Your task to perform on an android device: Open Maps and search for coffee Image 0: 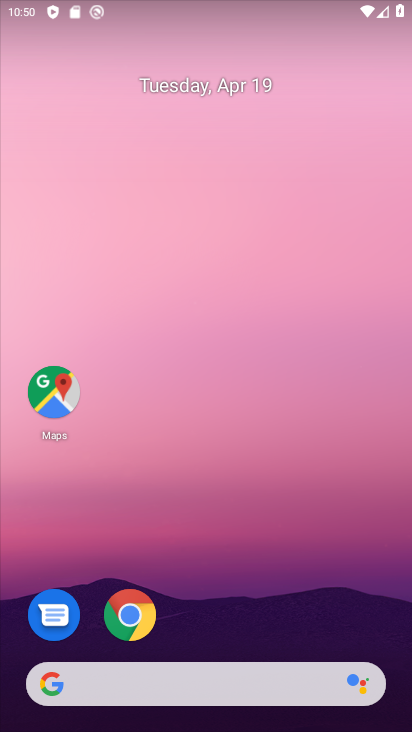
Step 0: click (54, 392)
Your task to perform on an android device: Open Maps and search for coffee Image 1: 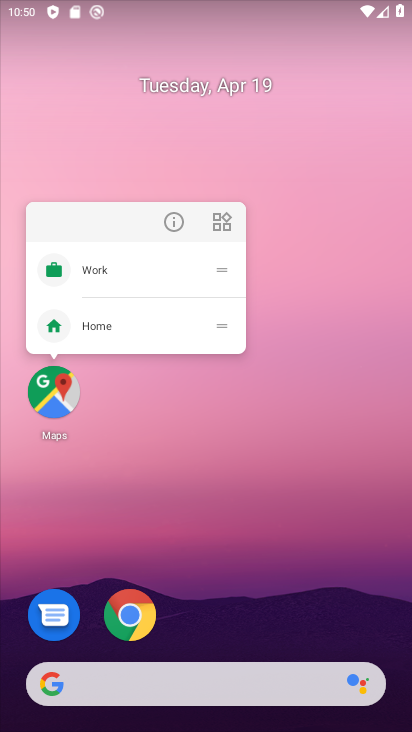
Step 1: click (54, 392)
Your task to perform on an android device: Open Maps and search for coffee Image 2: 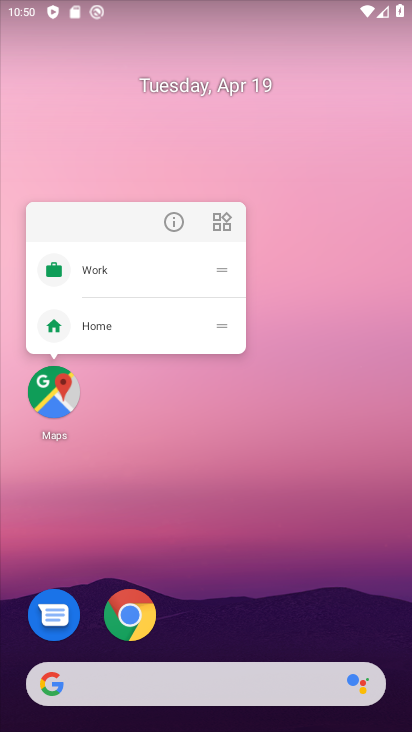
Step 2: click (121, 396)
Your task to perform on an android device: Open Maps and search for coffee Image 3: 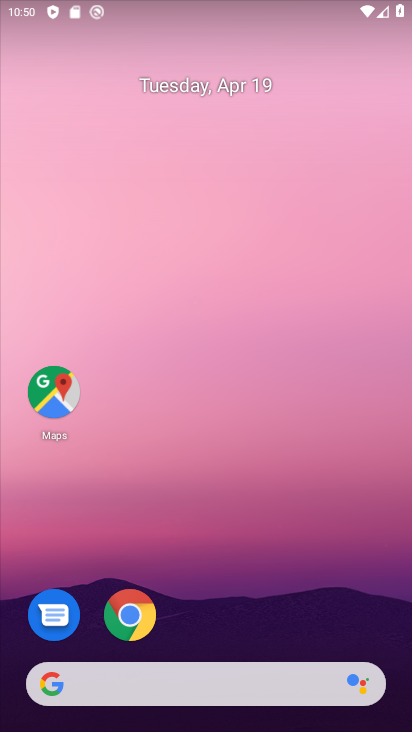
Step 3: click (54, 393)
Your task to perform on an android device: Open Maps and search for coffee Image 4: 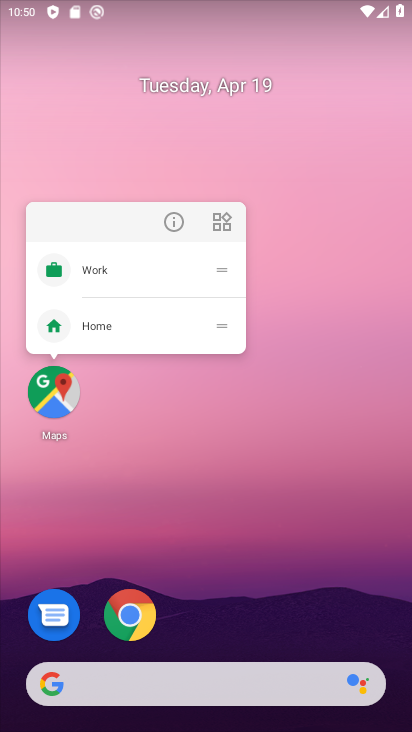
Step 4: click (54, 393)
Your task to perform on an android device: Open Maps and search for coffee Image 5: 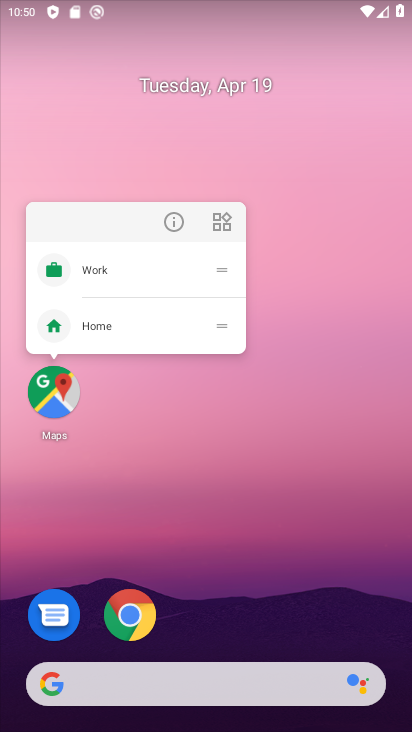
Step 5: click (54, 393)
Your task to perform on an android device: Open Maps and search for coffee Image 6: 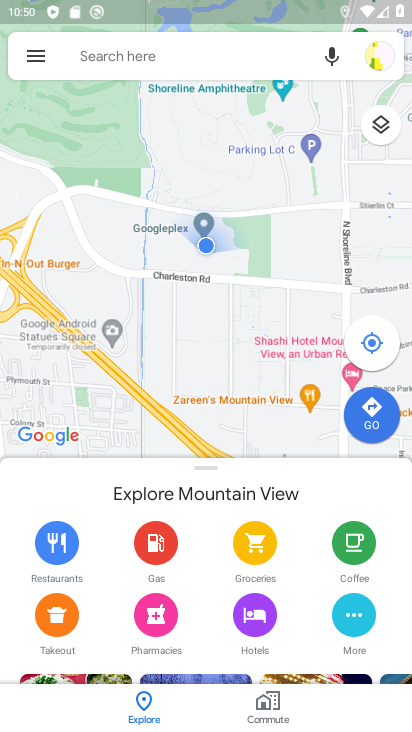
Step 6: click (162, 56)
Your task to perform on an android device: Open Maps and search for coffee Image 7: 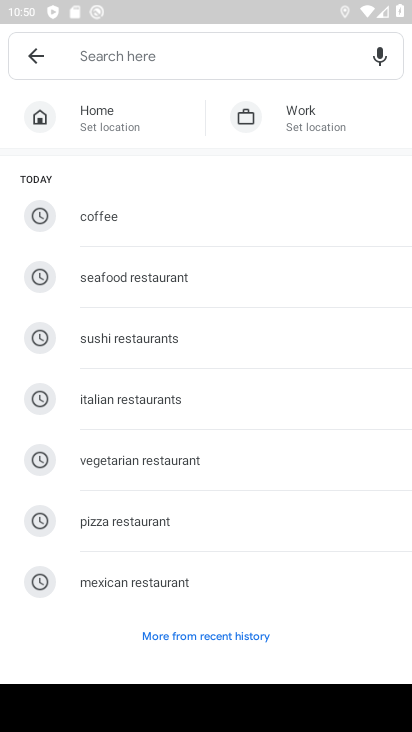
Step 7: click (122, 208)
Your task to perform on an android device: Open Maps and search for coffee Image 8: 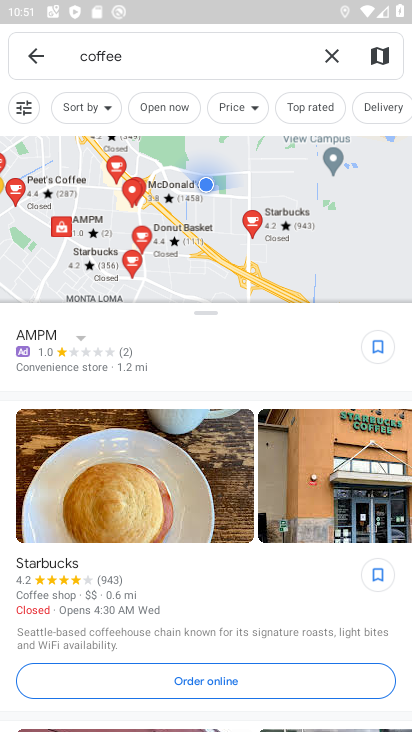
Step 8: task complete